Your task to perform on an android device: set the stopwatch Image 0: 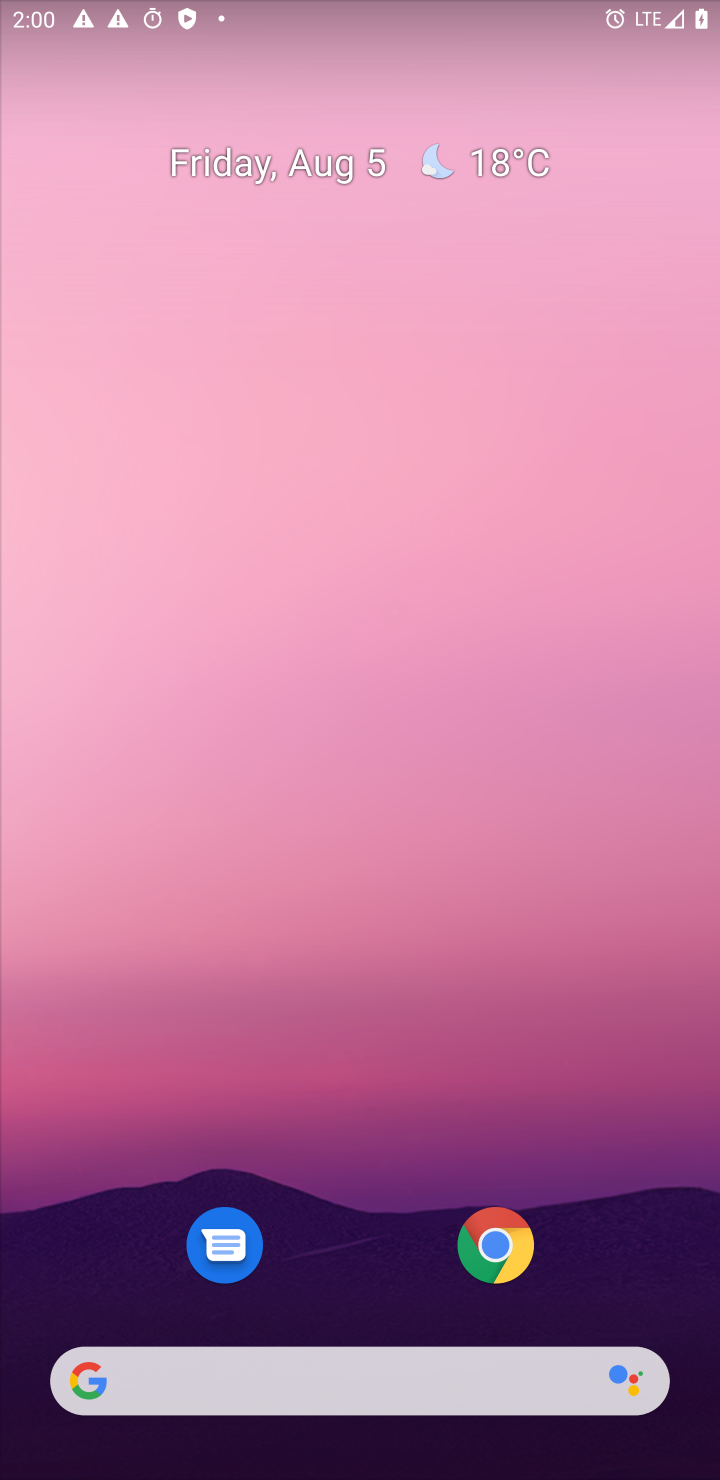
Step 0: press home button
Your task to perform on an android device: set the stopwatch Image 1: 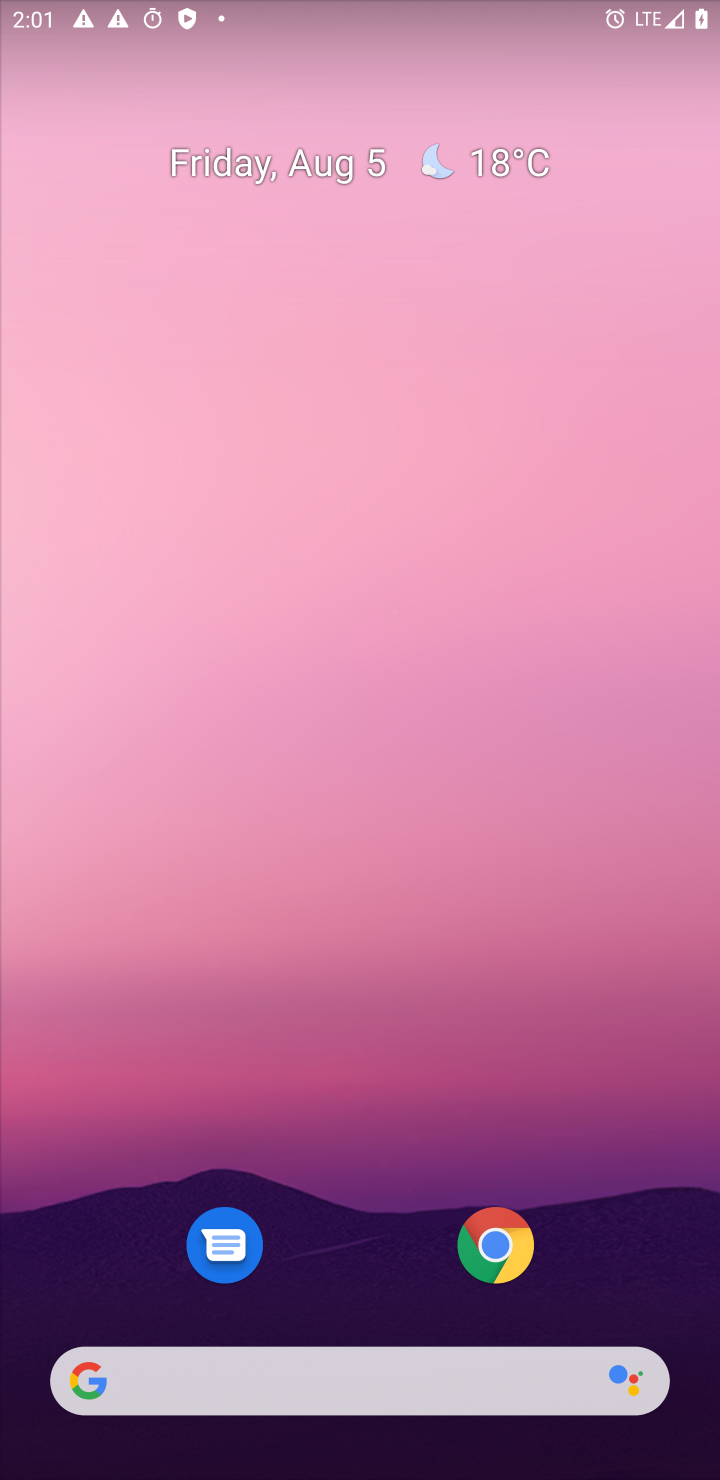
Step 1: drag from (402, 1229) to (522, 291)
Your task to perform on an android device: set the stopwatch Image 2: 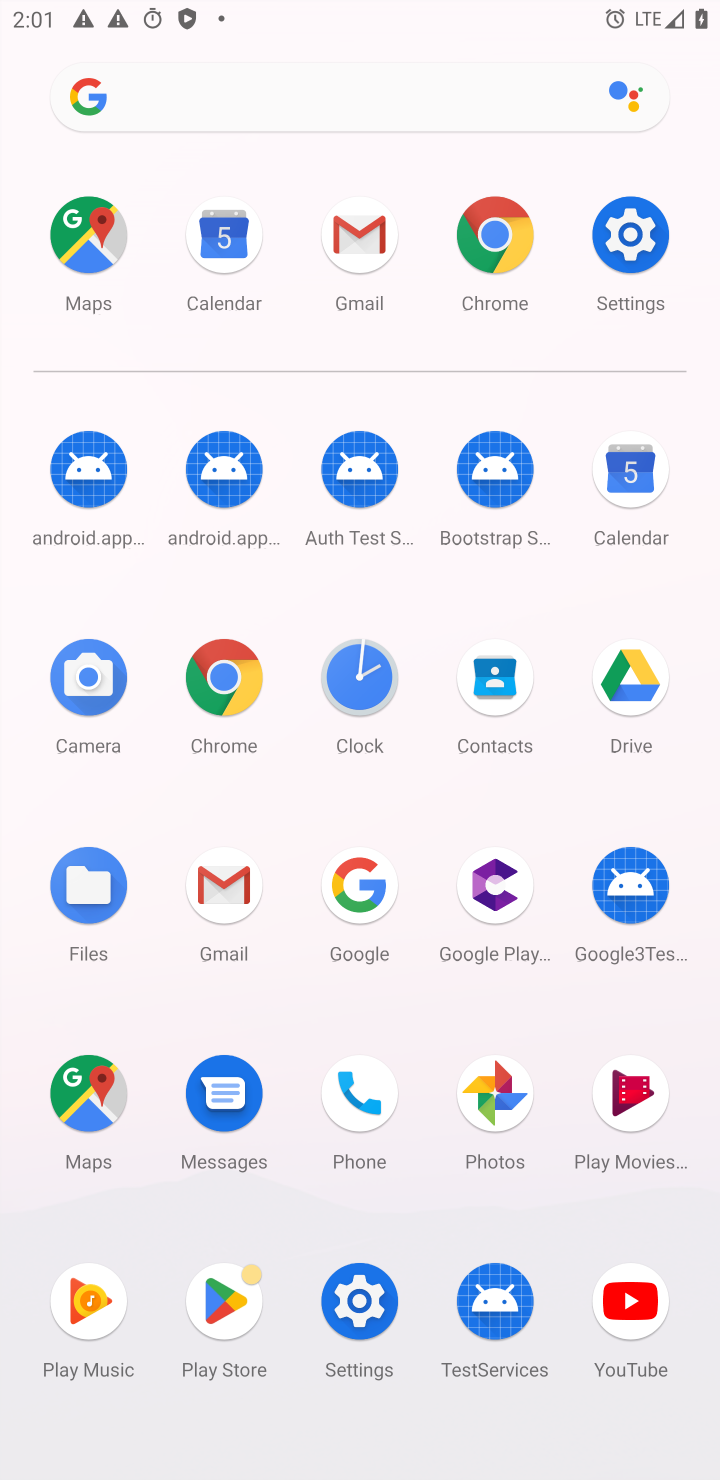
Step 2: click (360, 700)
Your task to perform on an android device: set the stopwatch Image 3: 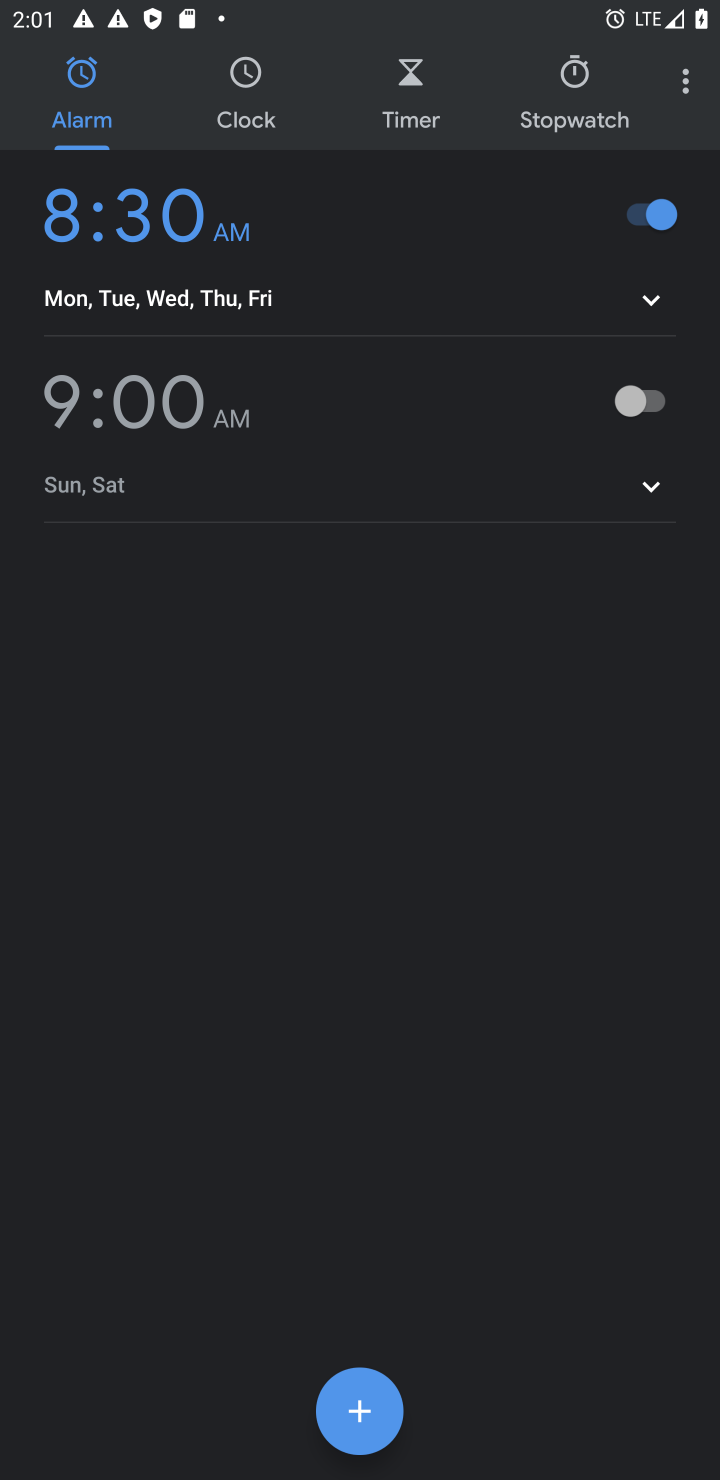
Step 3: click (581, 81)
Your task to perform on an android device: set the stopwatch Image 4: 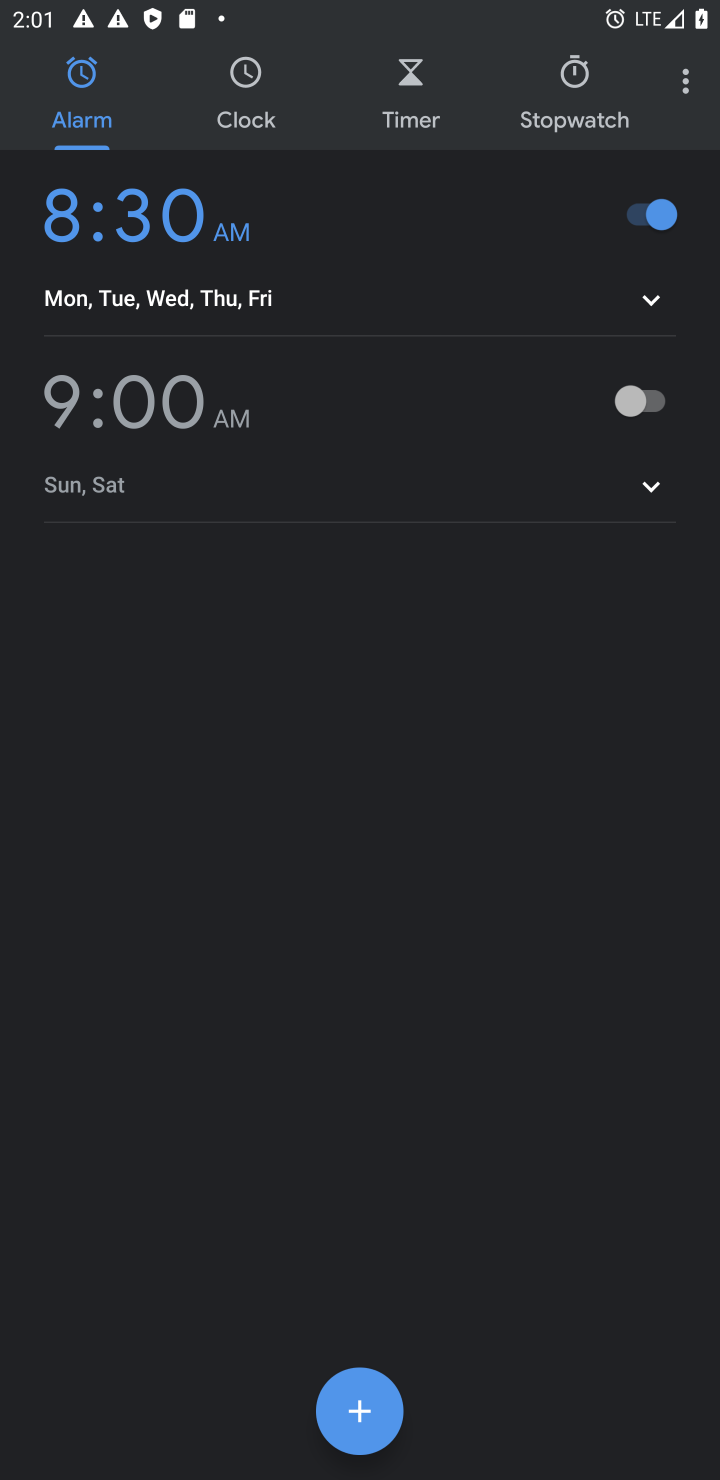
Step 4: click (597, 82)
Your task to perform on an android device: set the stopwatch Image 5: 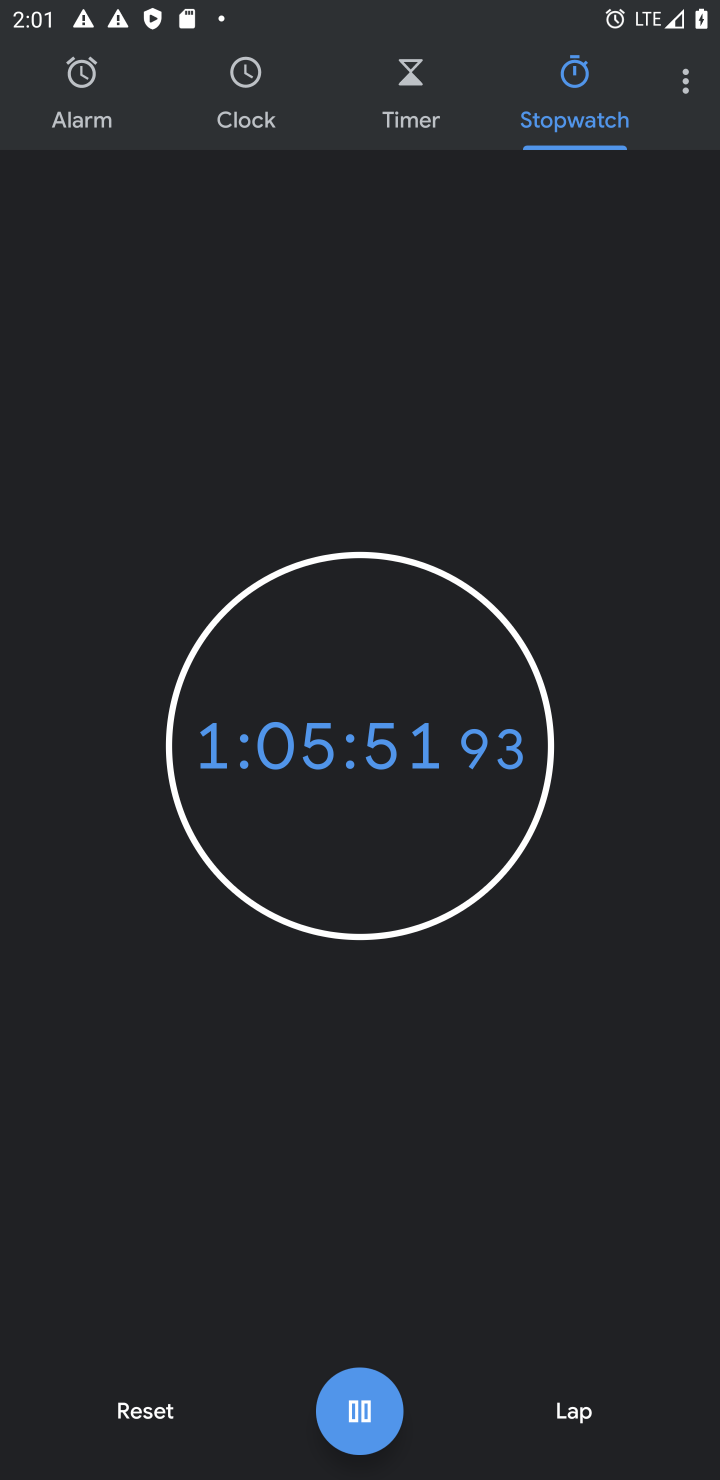
Step 5: task complete